Your task to perform on an android device: Turn on the flashlight Image 0: 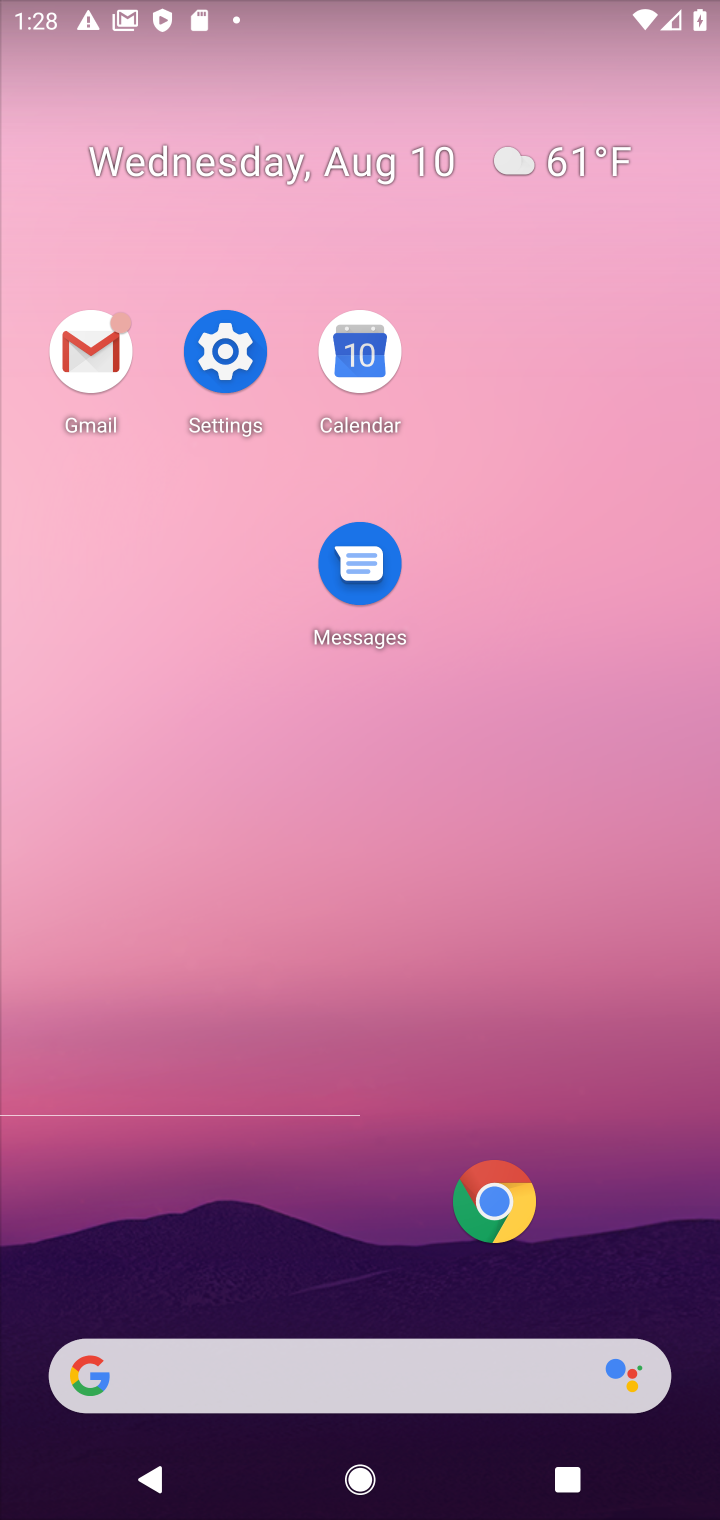
Step 0: drag from (479, 5) to (465, 767)
Your task to perform on an android device: Turn on the flashlight Image 1: 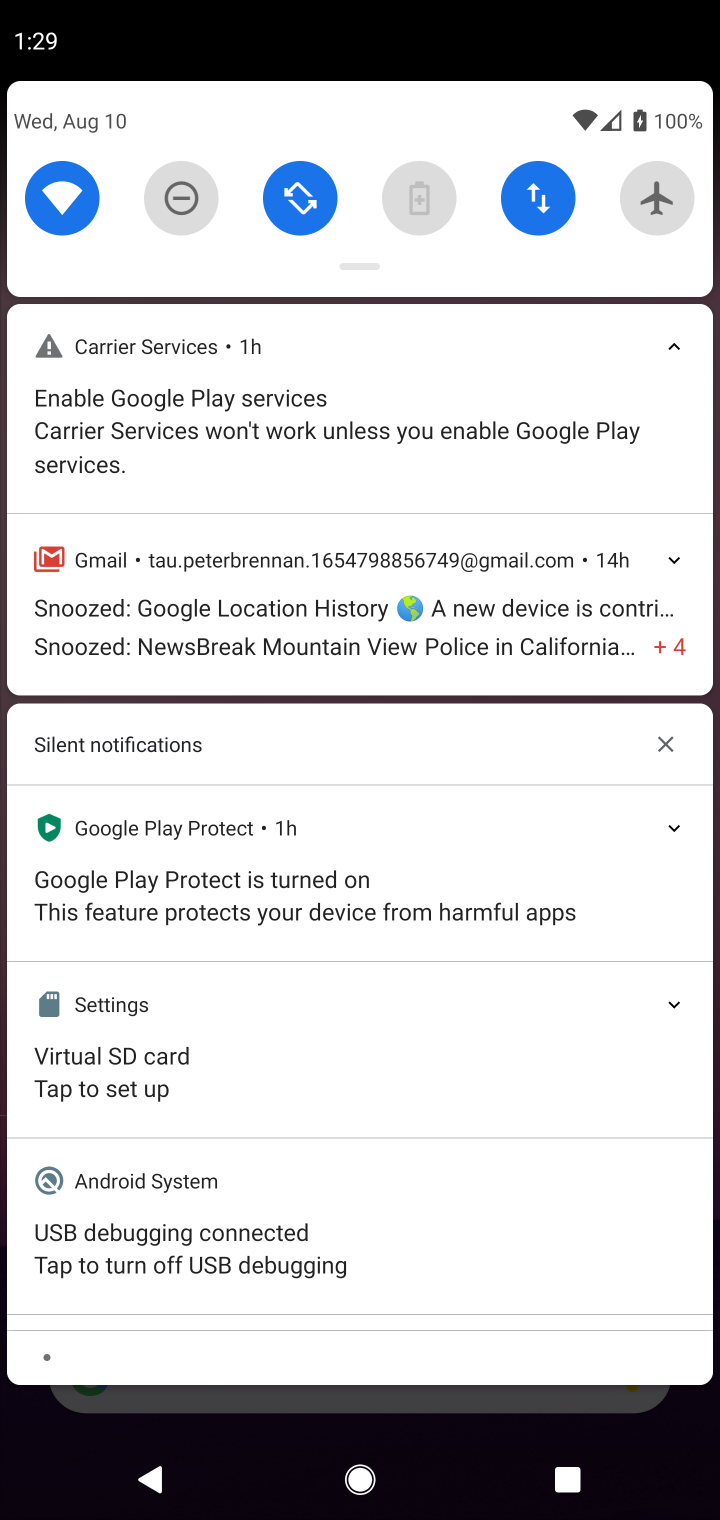
Step 1: task complete